Your task to perform on an android device: Go to Android settings Image 0: 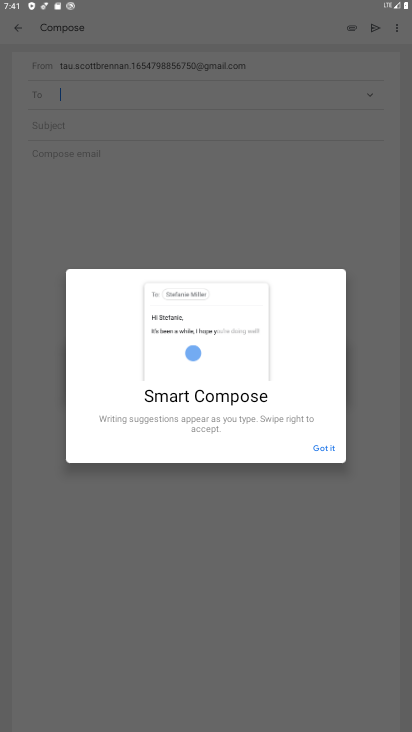
Step 0: press home button
Your task to perform on an android device: Go to Android settings Image 1: 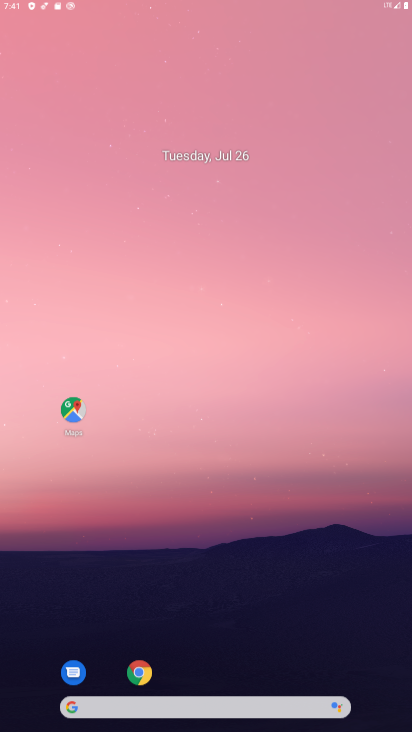
Step 1: drag from (394, 642) to (211, 21)
Your task to perform on an android device: Go to Android settings Image 2: 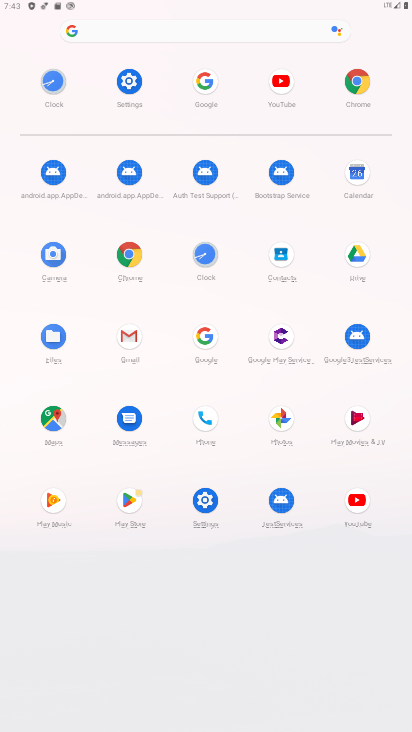
Step 2: click (206, 517)
Your task to perform on an android device: Go to Android settings Image 3: 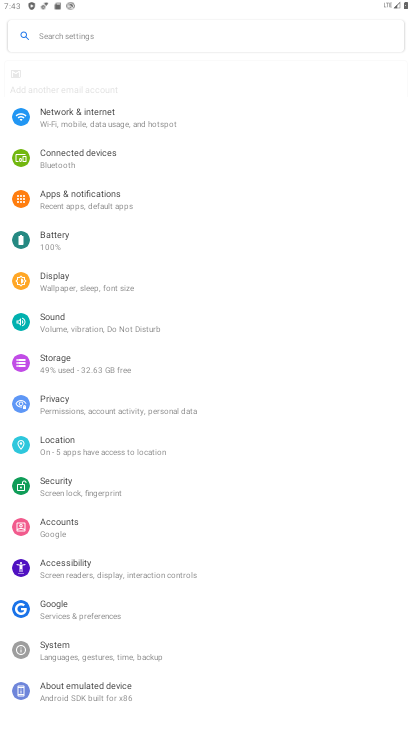
Step 3: task complete